Your task to perform on an android device: toggle data saver in the chrome app Image 0: 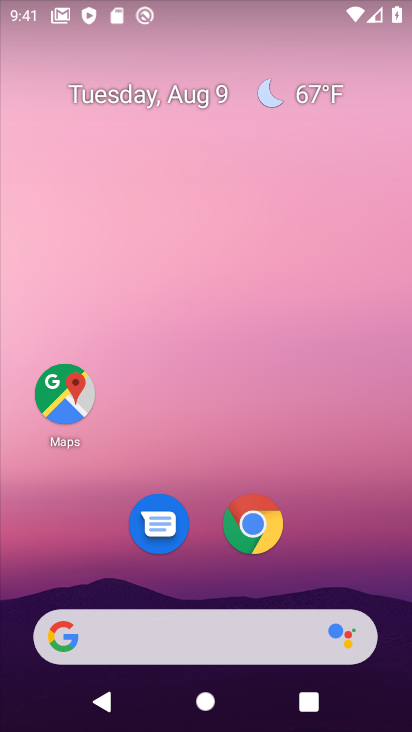
Step 0: click (261, 507)
Your task to perform on an android device: toggle data saver in the chrome app Image 1: 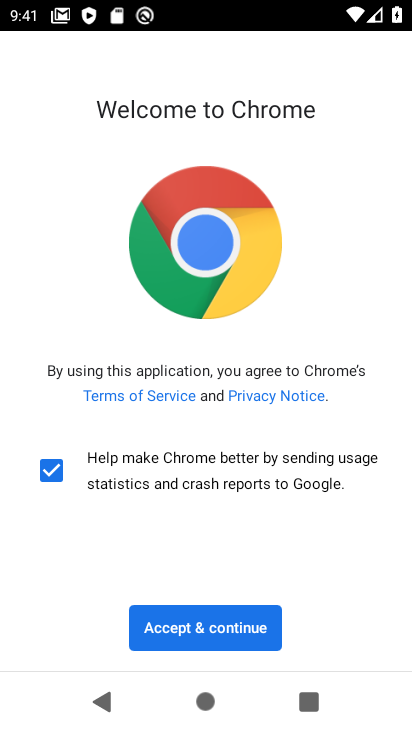
Step 1: click (215, 633)
Your task to perform on an android device: toggle data saver in the chrome app Image 2: 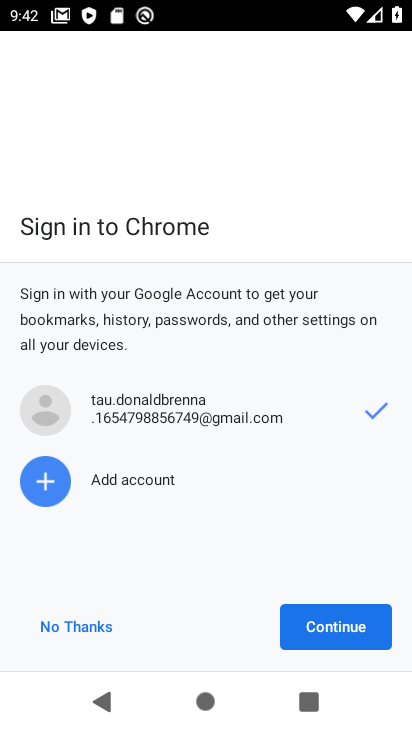
Step 2: click (340, 610)
Your task to perform on an android device: toggle data saver in the chrome app Image 3: 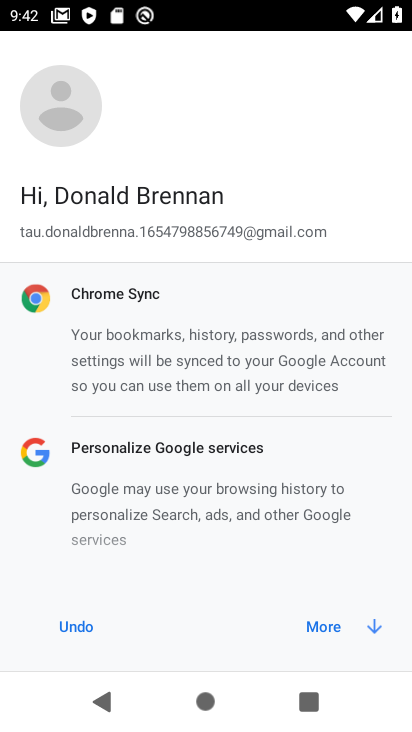
Step 3: click (320, 617)
Your task to perform on an android device: toggle data saver in the chrome app Image 4: 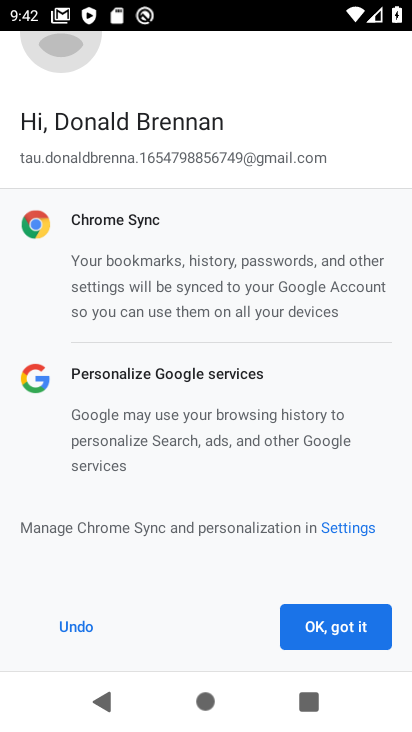
Step 4: click (320, 617)
Your task to perform on an android device: toggle data saver in the chrome app Image 5: 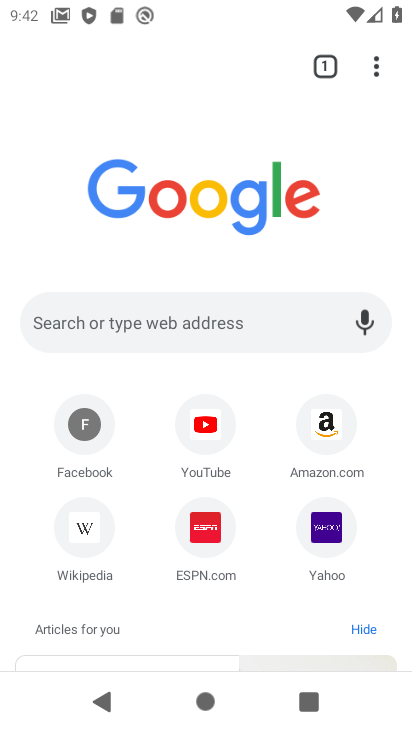
Step 5: click (387, 66)
Your task to perform on an android device: toggle data saver in the chrome app Image 6: 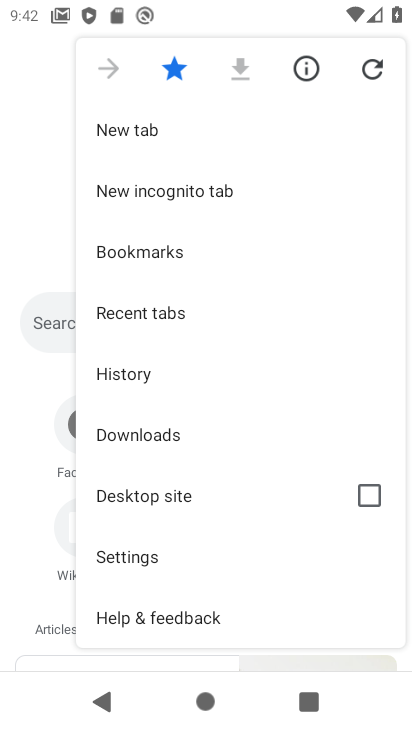
Step 6: click (173, 554)
Your task to perform on an android device: toggle data saver in the chrome app Image 7: 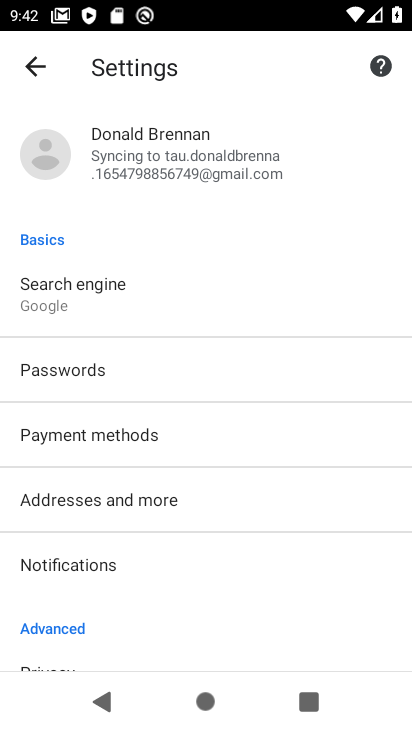
Step 7: drag from (173, 554) to (145, 197)
Your task to perform on an android device: toggle data saver in the chrome app Image 8: 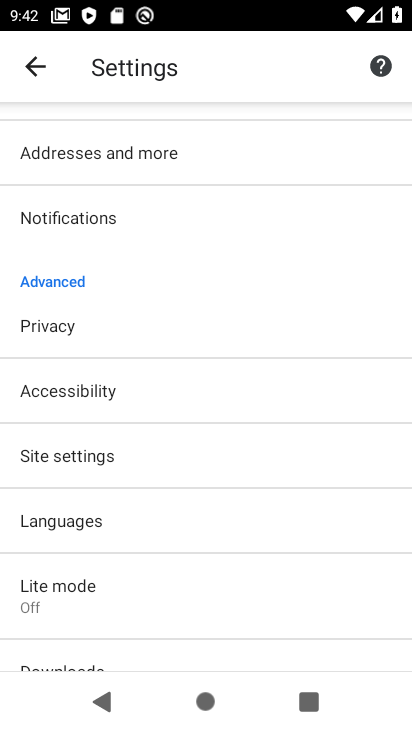
Step 8: drag from (219, 605) to (220, 243)
Your task to perform on an android device: toggle data saver in the chrome app Image 9: 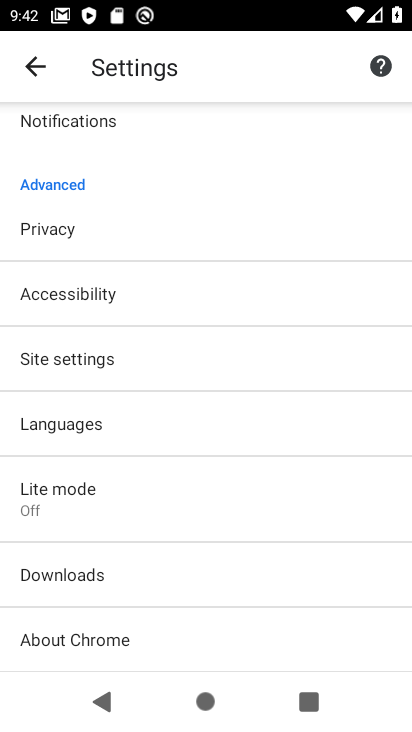
Step 9: click (129, 495)
Your task to perform on an android device: toggle data saver in the chrome app Image 10: 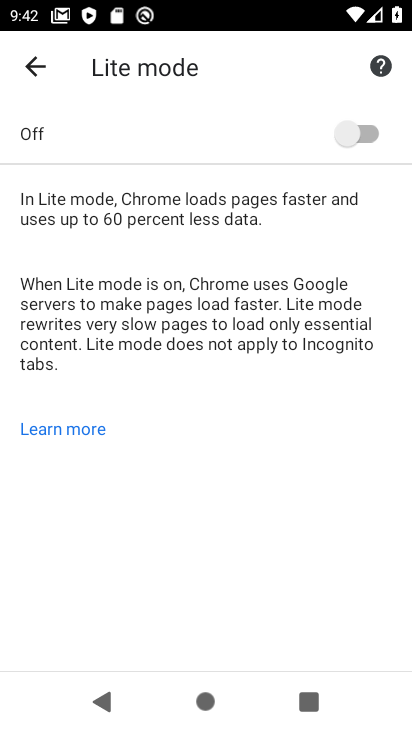
Step 10: click (346, 126)
Your task to perform on an android device: toggle data saver in the chrome app Image 11: 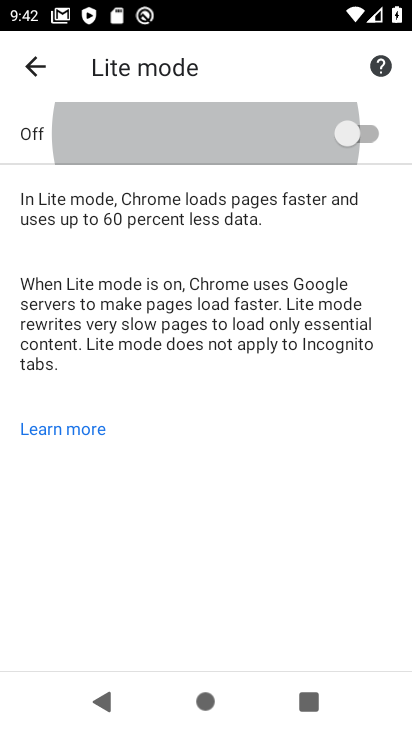
Step 11: click (346, 126)
Your task to perform on an android device: toggle data saver in the chrome app Image 12: 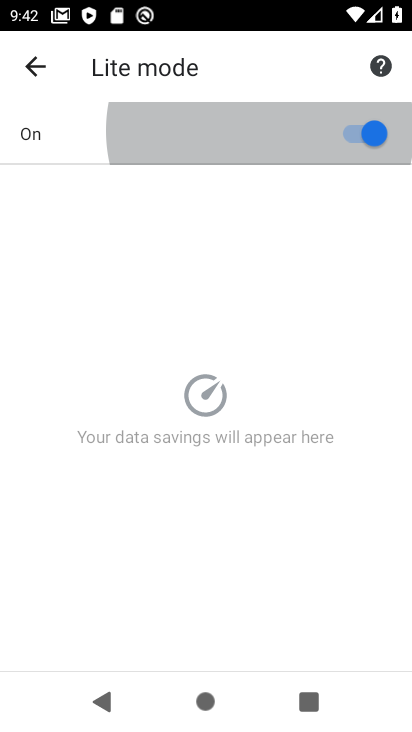
Step 12: click (346, 126)
Your task to perform on an android device: toggle data saver in the chrome app Image 13: 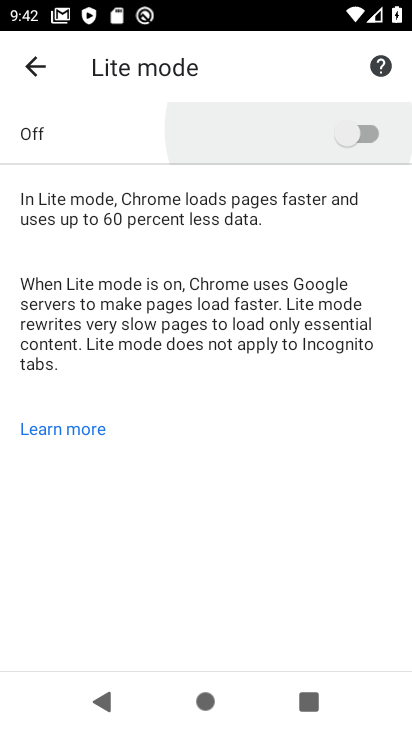
Step 13: click (346, 126)
Your task to perform on an android device: toggle data saver in the chrome app Image 14: 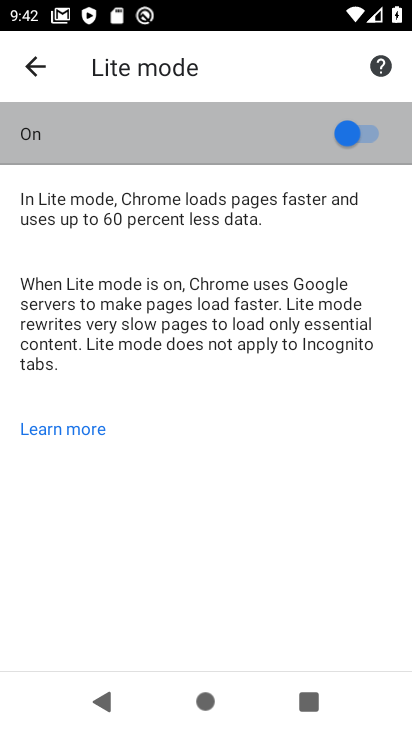
Step 14: click (346, 126)
Your task to perform on an android device: toggle data saver in the chrome app Image 15: 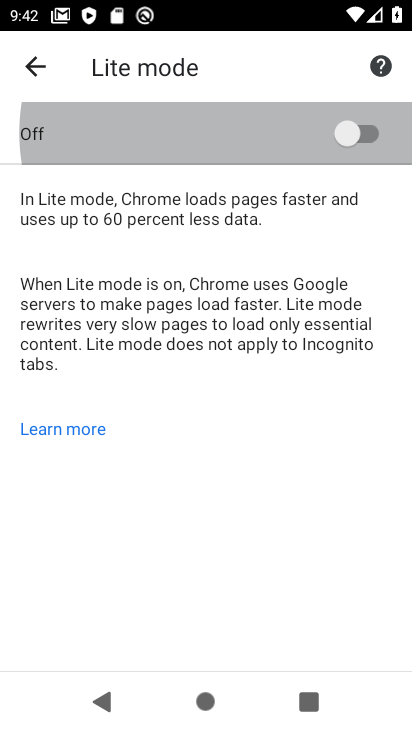
Step 15: click (346, 126)
Your task to perform on an android device: toggle data saver in the chrome app Image 16: 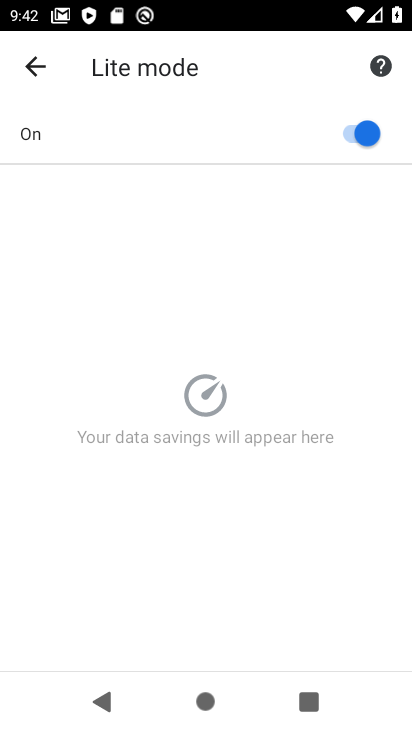
Step 16: click (346, 126)
Your task to perform on an android device: toggle data saver in the chrome app Image 17: 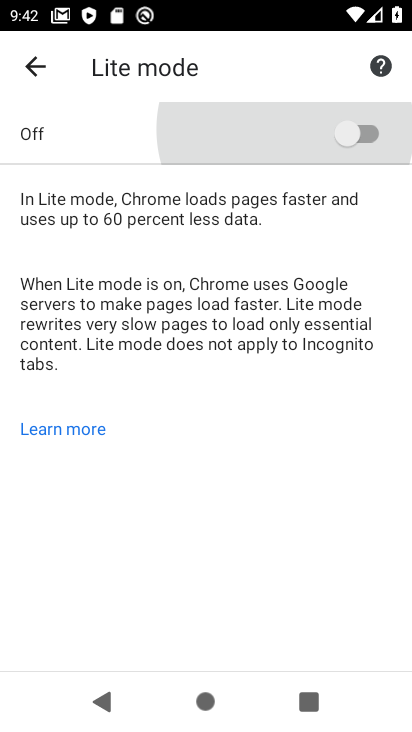
Step 17: click (346, 126)
Your task to perform on an android device: toggle data saver in the chrome app Image 18: 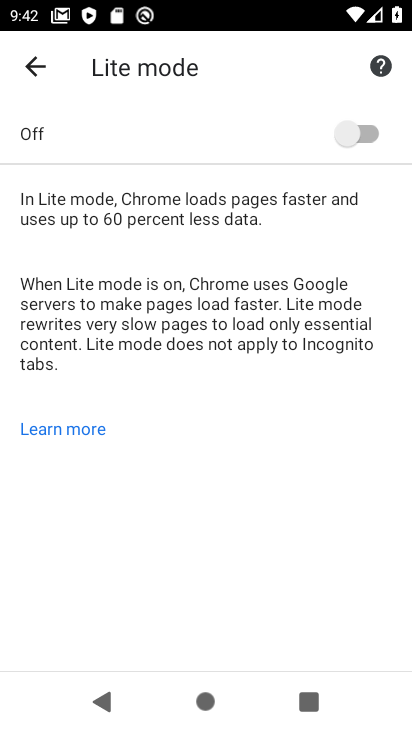
Step 18: task complete